Your task to perform on an android device: create a new album in the google photos Image 0: 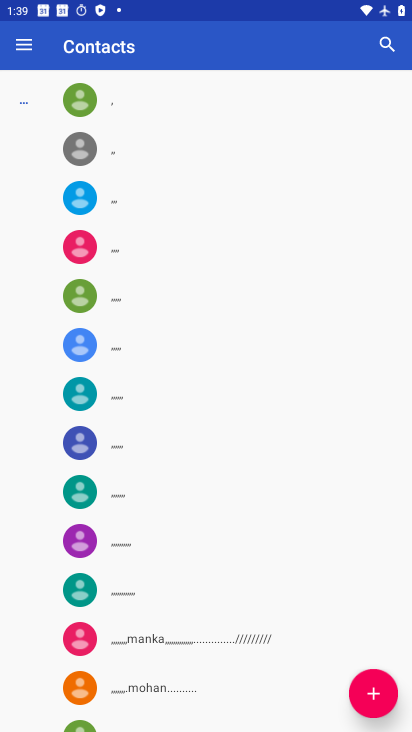
Step 0: press home button
Your task to perform on an android device: create a new album in the google photos Image 1: 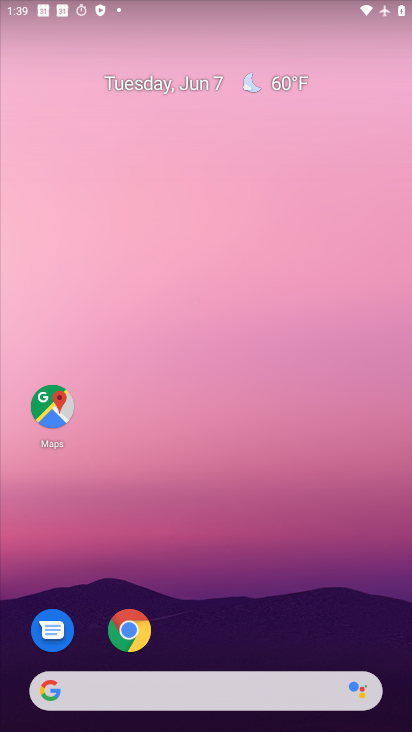
Step 1: drag from (380, 622) to (324, 53)
Your task to perform on an android device: create a new album in the google photos Image 2: 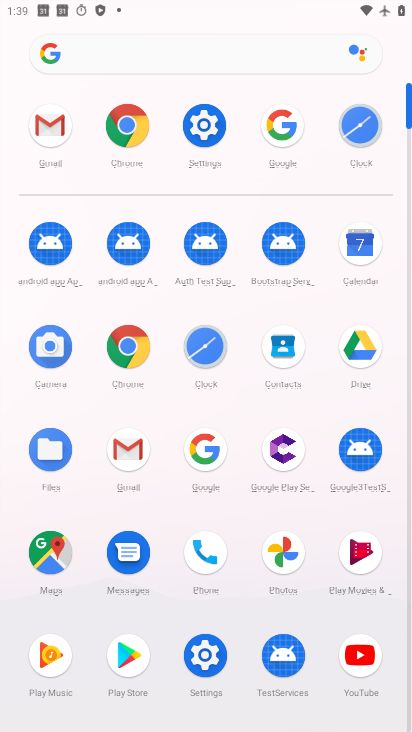
Step 2: click (285, 551)
Your task to perform on an android device: create a new album in the google photos Image 3: 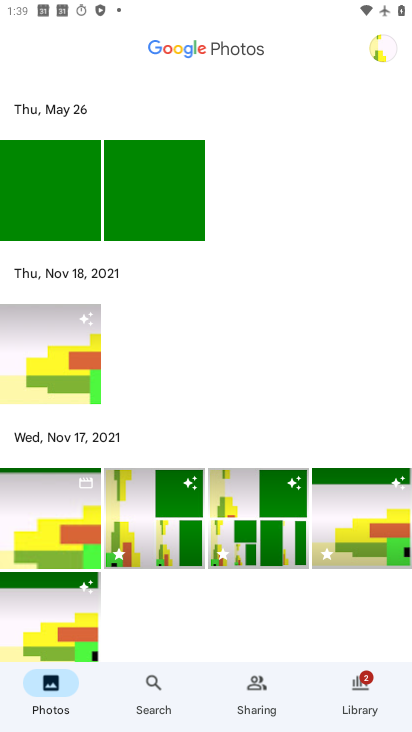
Step 3: click (34, 174)
Your task to perform on an android device: create a new album in the google photos Image 4: 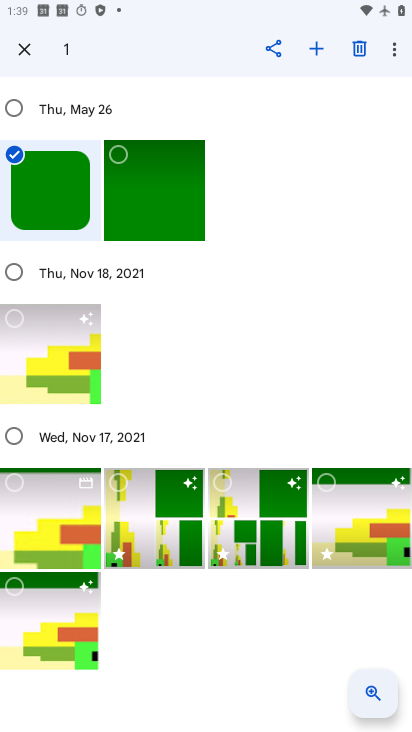
Step 4: click (139, 179)
Your task to perform on an android device: create a new album in the google photos Image 5: 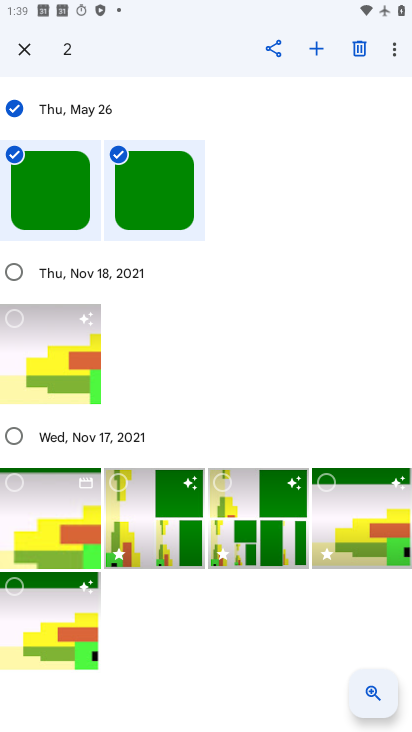
Step 5: click (310, 43)
Your task to perform on an android device: create a new album in the google photos Image 6: 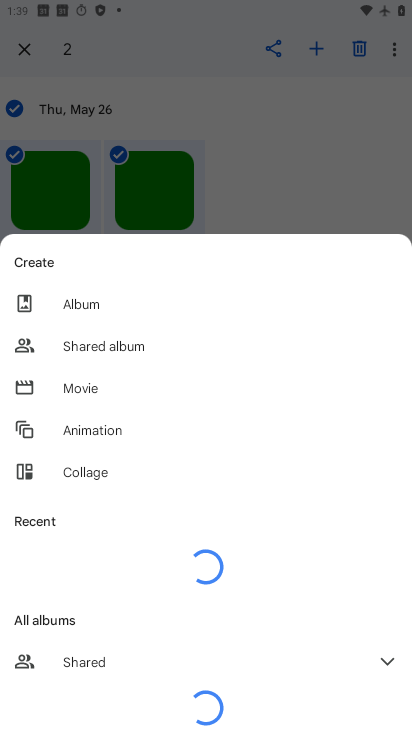
Step 6: click (73, 300)
Your task to perform on an android device: create a new album in the google photos Image 7: 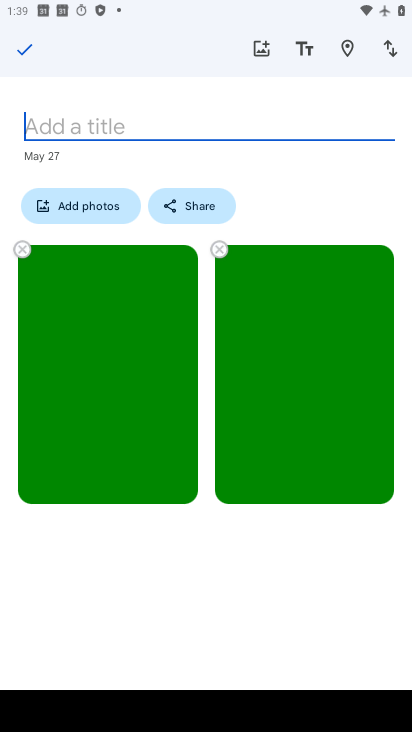
Step 7: type "gsssss"
Your task to perform on an android device: create a new album in the google photos Image 8: 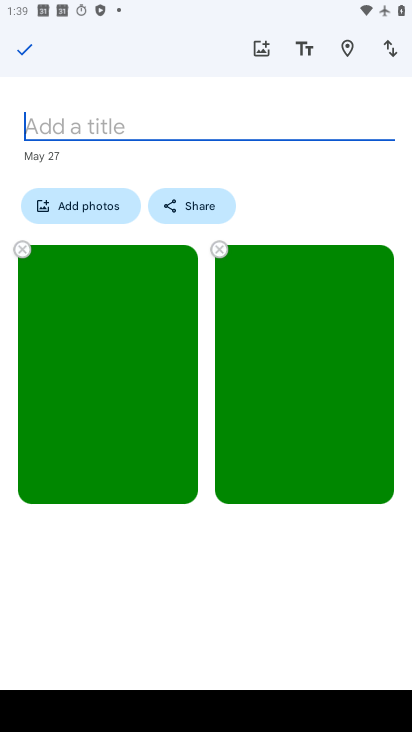
Step 8: click (23, 47)
Your task to perform on an android device: create a new album in the google photos Image 9: 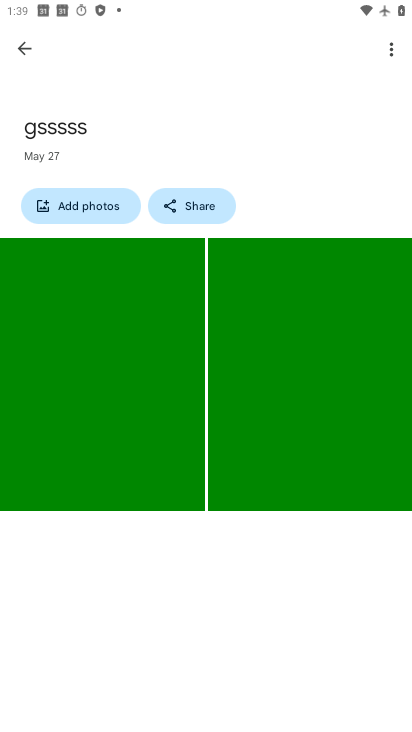
Step 9: task complete